Your task to perform on an android device: turn off sleep mode Image 0: 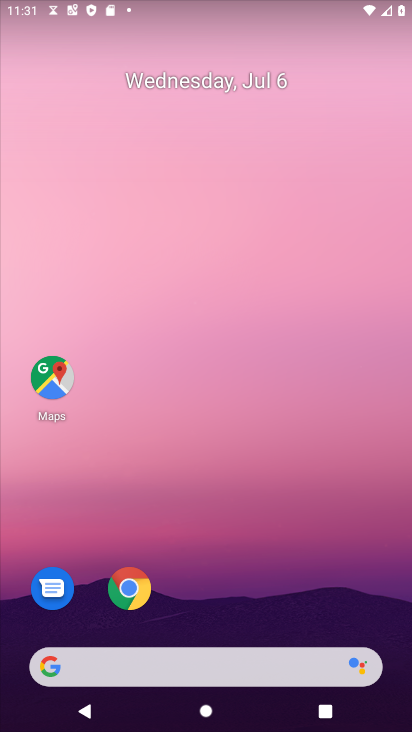
Step 0: drag from (186, 566) to (207, 194)
Your task to perform on an android device: turn off sleep mode Image 1: 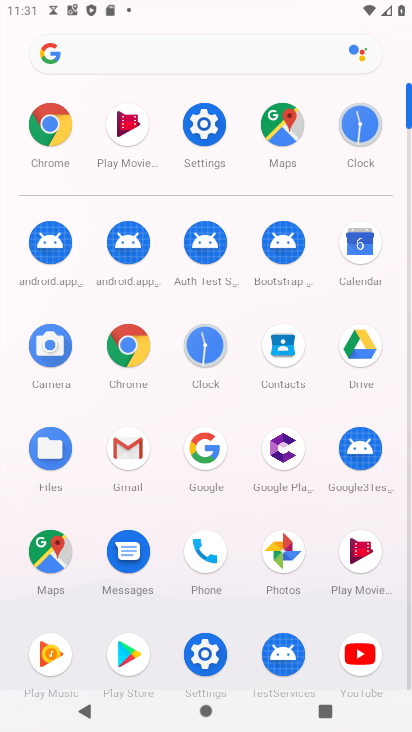
Step 1: click (209, 119)
Your task to perform on an android device: turn off sleep mode Image 2: 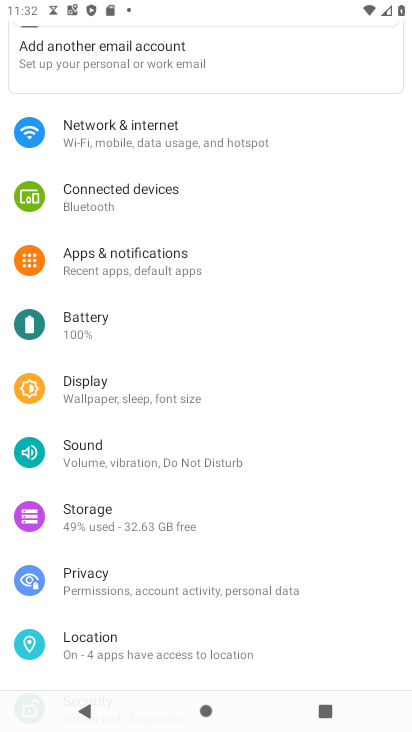
Step 2: task complete